Your task to perform on an android device: toggle airplane mode Image 0: 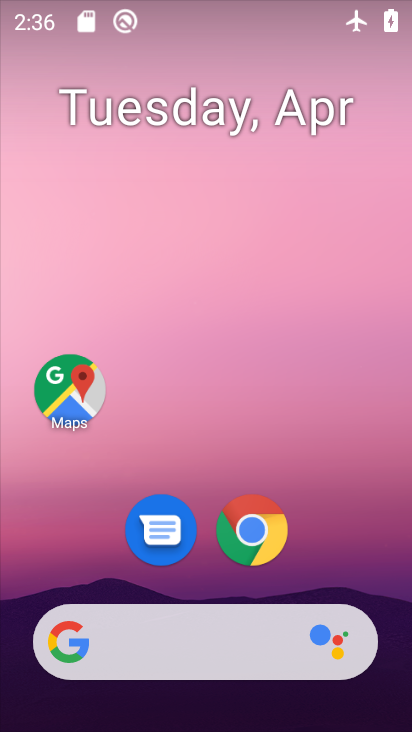
Step 0: drag from (220, 724) to (163, 34)
Your task to perform on an android device: toggle airplane mode Image 1: 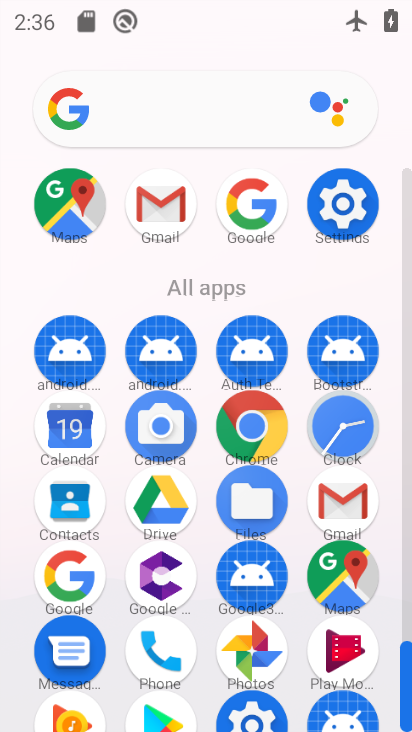
Step 1: click (345, 205)
Your task to perform on an android device: toggle airplane mode Image 2: 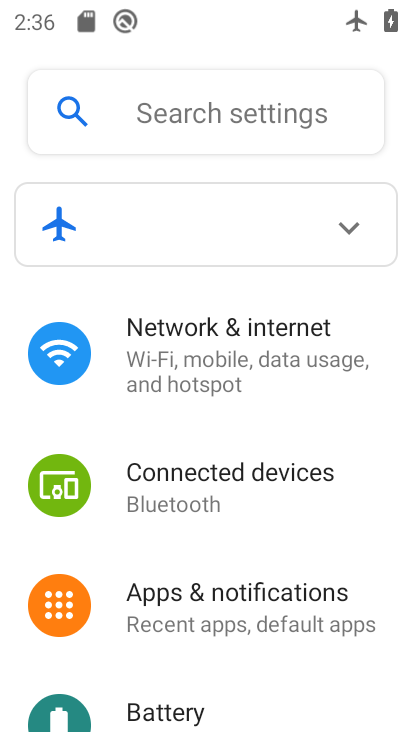
Step 2: click (219, 338)
Your task to perform on an android device: toggle airplane mode Image 3: 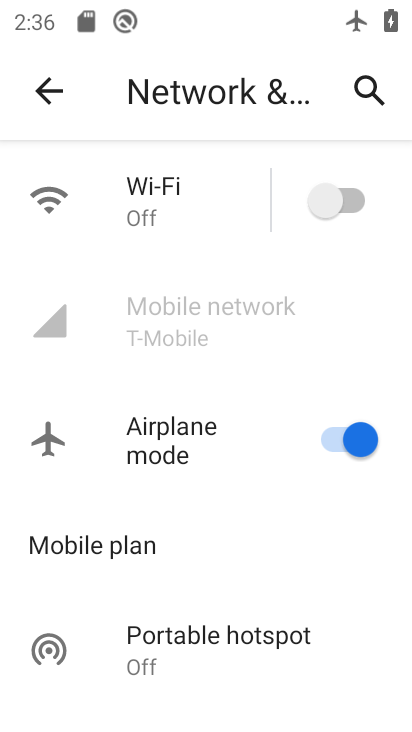
Step 3: click (336, 441)
Your task to perform on an android device: toggle airplane mode Image 4: 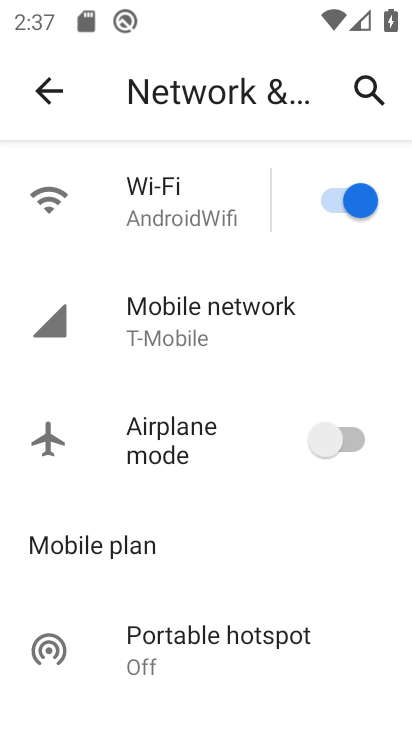
Step 4: task complete